Your task to perform on an android device: open app "Pandora - Music & Podcasts" (install if not already installed) and go to login screen Image 0: 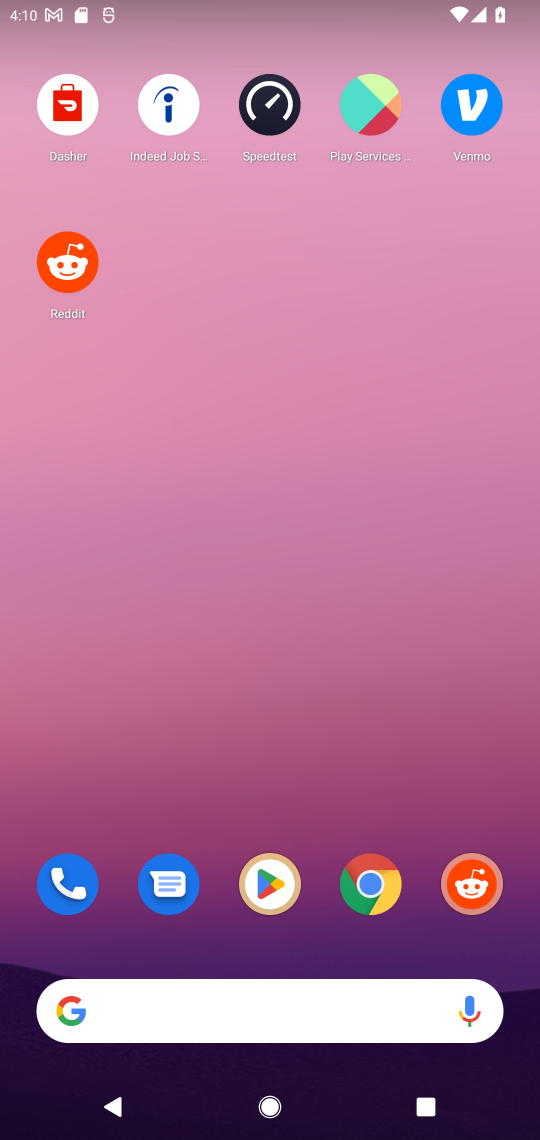
Step 0: click (266, 863)
Your task to perform on an android device: open app "Pandora - Music & Podcasts" (install if not already installed) and go to login screen Image 1: 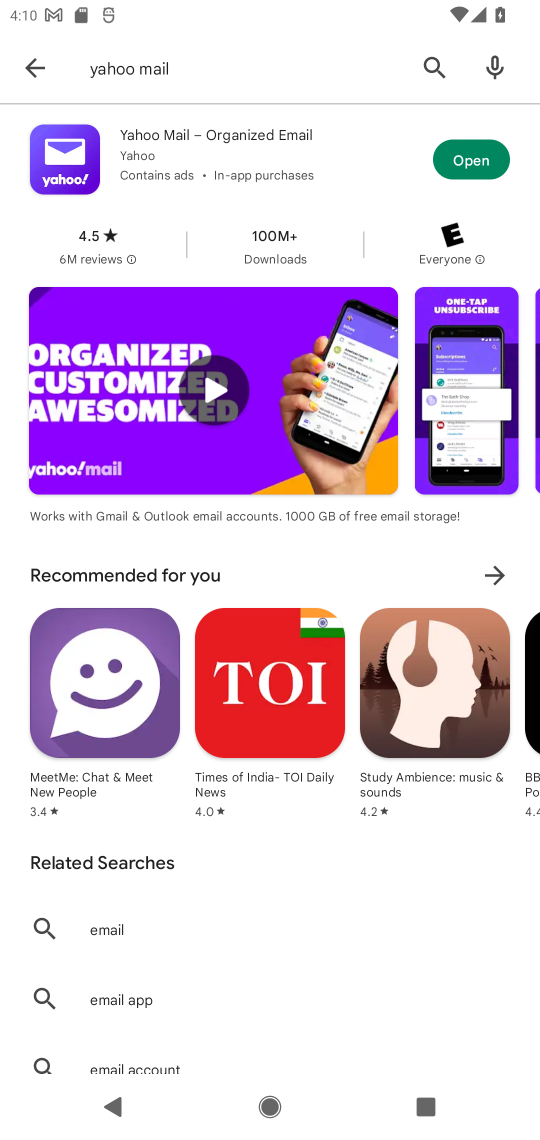
Step 1: click (214, 61)
Your task to perform on an android device: open app "Pandora - Music & Podcasts" (install if not already installed) and go to login screen Image 2: 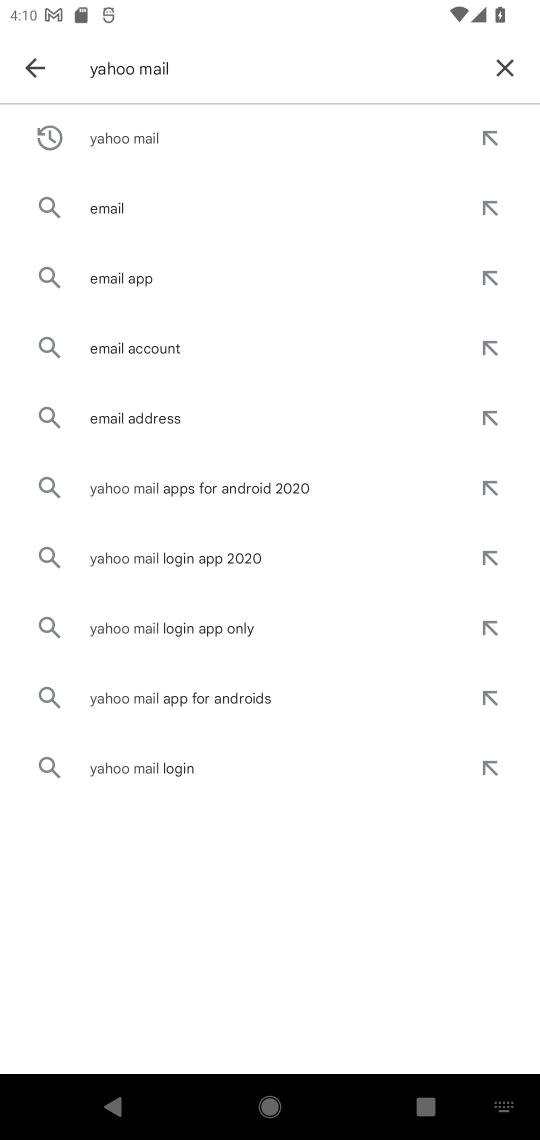
Step 2: click (507, 54)
Your task to perform on an android device: open app "Pandora - Music & Podcasts" (install if not already installed) and go to login screen Image 3: 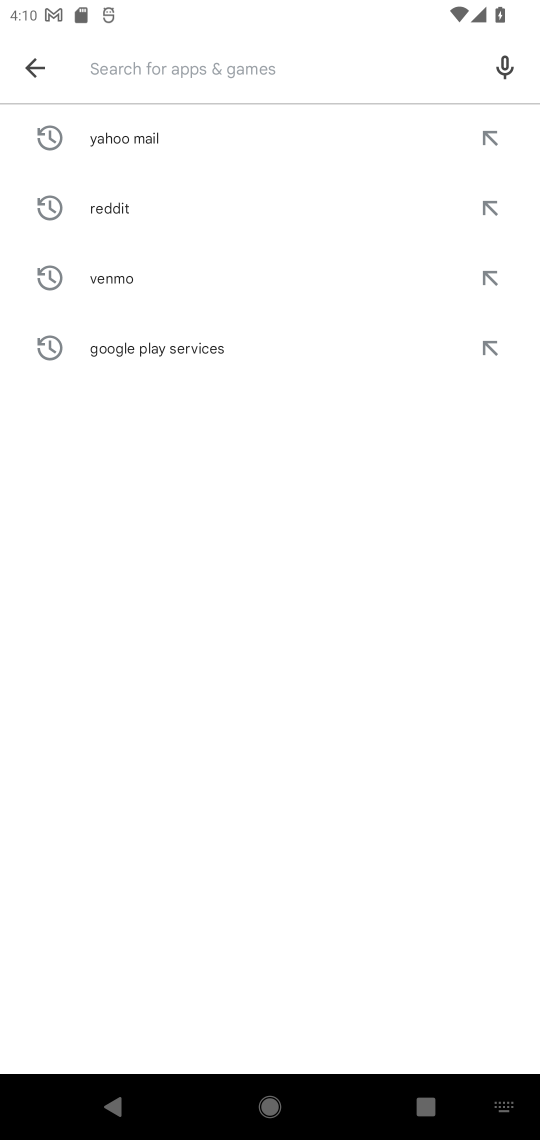
Step 3: type "Pandora"
Your task to perform on an android device: open app "Pandora - Music & Podcasts" (install if not already installed) and go to login screen Image 4: 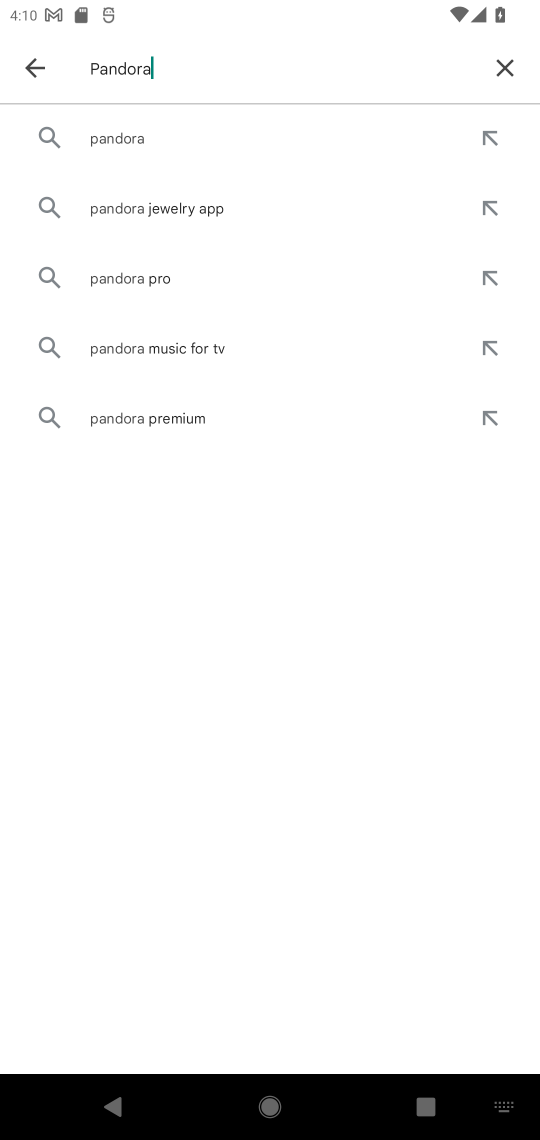
Step 4: click (107, 147)
Your task to perform on an android device: open app "Pandora - Music & Podcasts" (install if not already installed) and go to login screen Image 5: 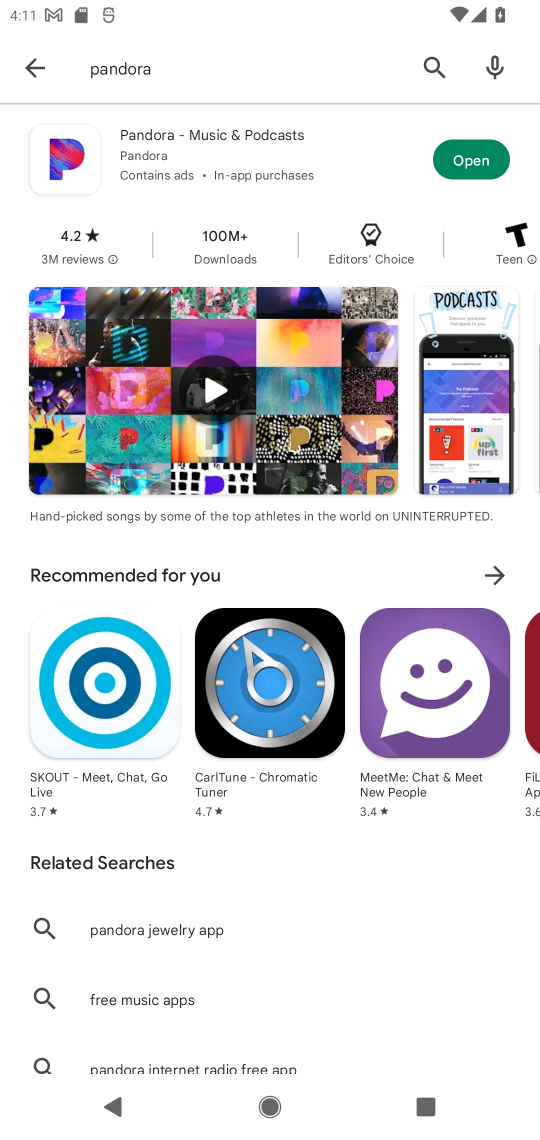
Step 5: click (487, 175)
Your task to perform on an android device: open app "Pandora - Music & Podcasts" (install if not already installed) and go to login screen Image 6: 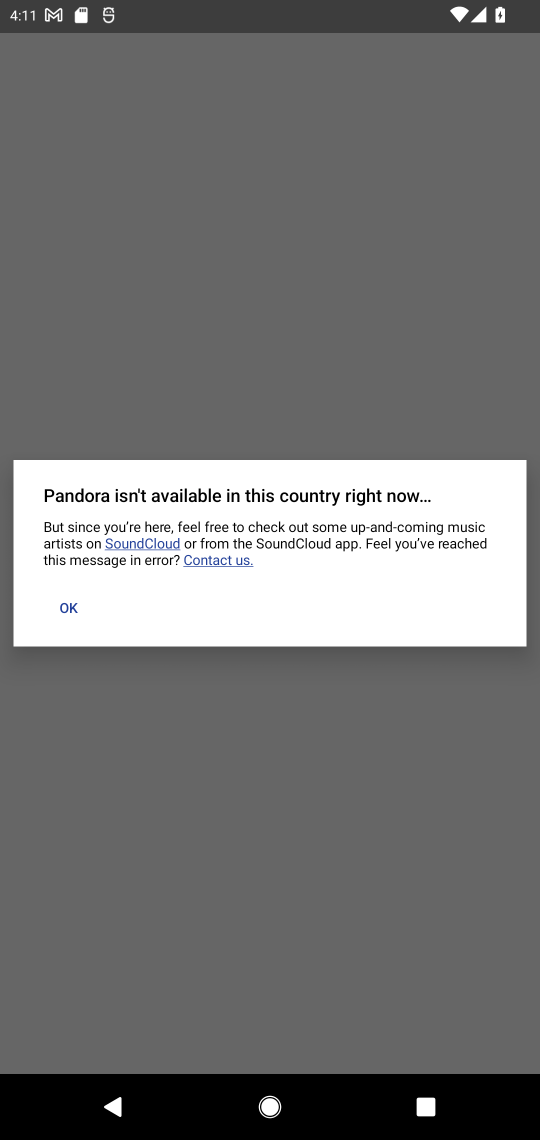
Step 6: click (67, 617)
Your task to perform on an android device: open app "Pandora - Music & Podcasts" (install if not already installed) and go to login screen Image 7: 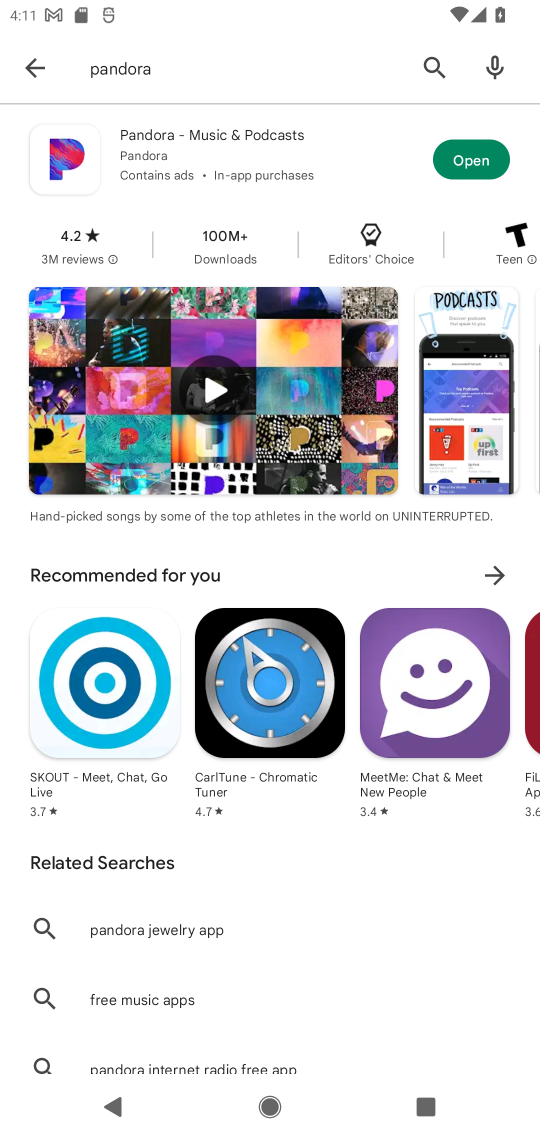
Step 7: task complete